Your task to perform on an android device: open chrome and create a bookmark for the current page Image 0: 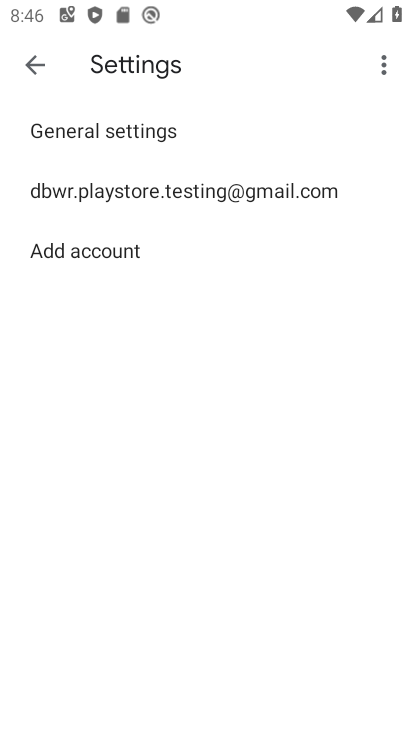
Step 0: press home button
Your task to perform on an android device: open chrome and create a bookmark for the current page Image 1: 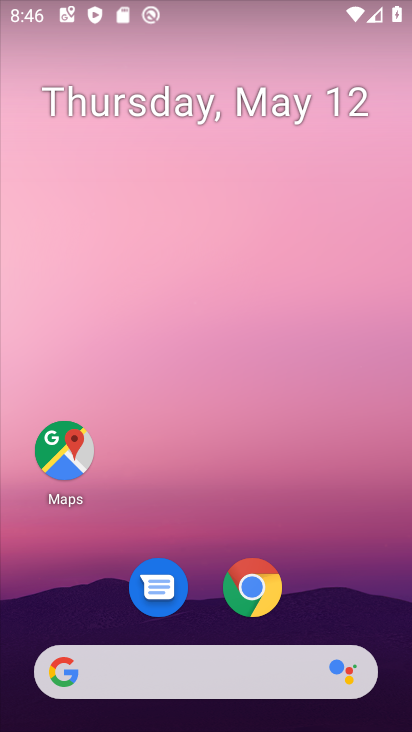
Step 1: drag from (320, 611) to (285, 279)
Your task to perform on an android device: open chrome and create a bookmark for the current page Image 2: 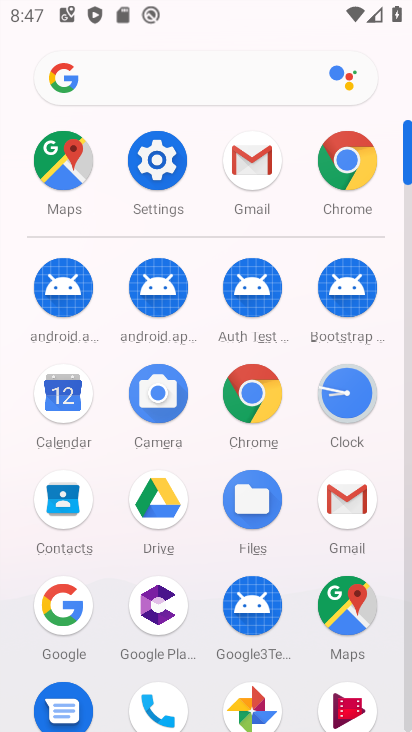
Step 2: click (248, 388)
Your task to perform on an android device: open chrome and create a bookmark for the current page Image 3: 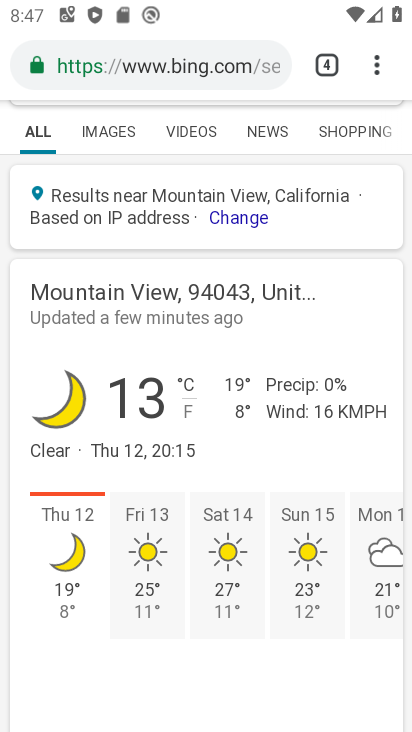
Step 3: click (362, 65)
Your task to perform on an android device: open chrome and create a bookmark for the current page Image 4: 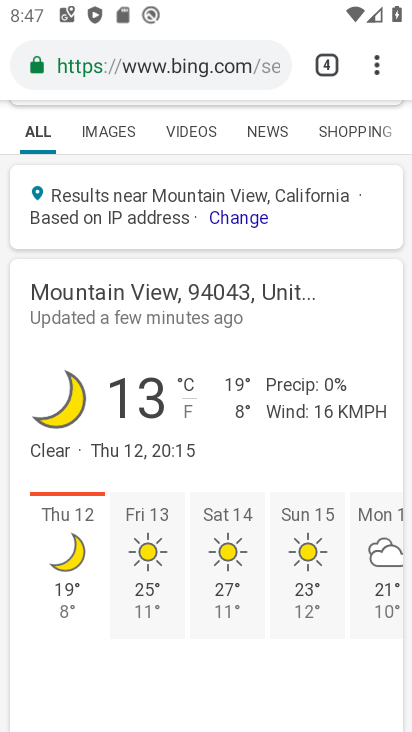
Step 4: click (368, 66)
Your task to perform on an android device: open chrome and create a bookmark for the current page Image 5: 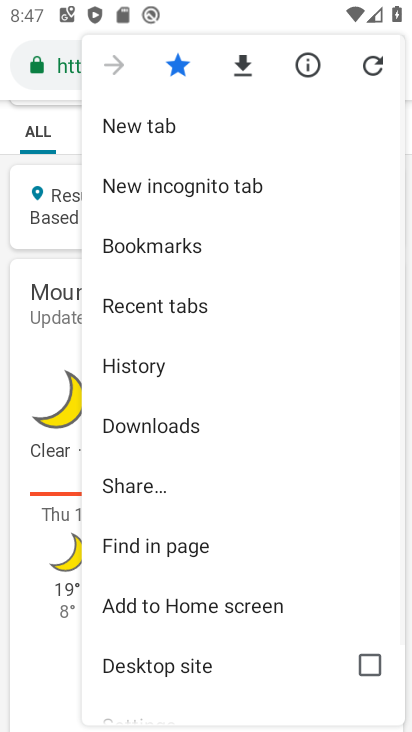
Step 5: click (173, 59)
Your task to perform on an android device: open chrome and create a bookmark for the current page Image 6: 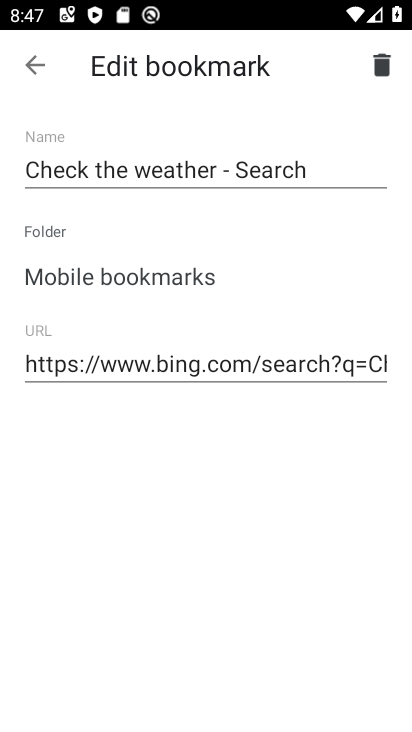
Step 6: click (44, 59)
Your task to perform on an android device: open chrome and create a bookmark for the current page Image 7: 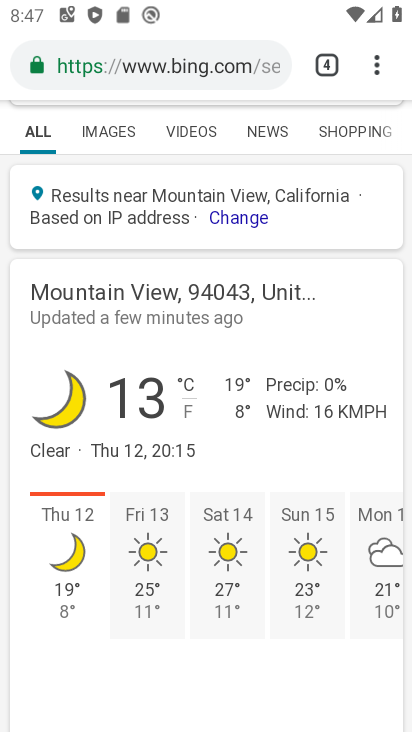
Step 7: task complete